Your task to perform on an android device: Search for the best books of all time on Goodreads Image 0: 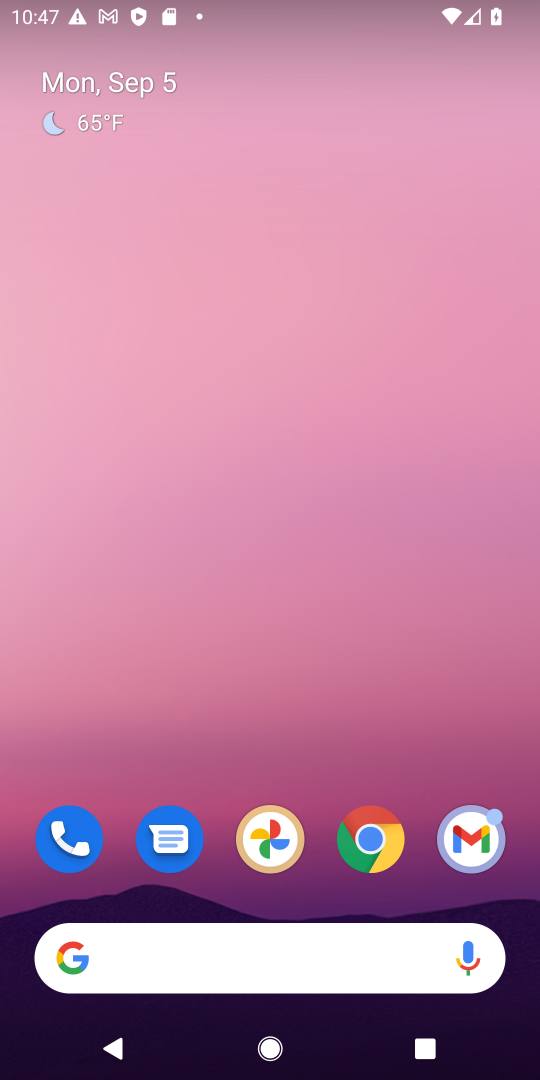
Step 0: drag from (228, 898) to (252, 111)
Your task to perform on an android device: Search for the best books of all time on Goodreads Image 1: 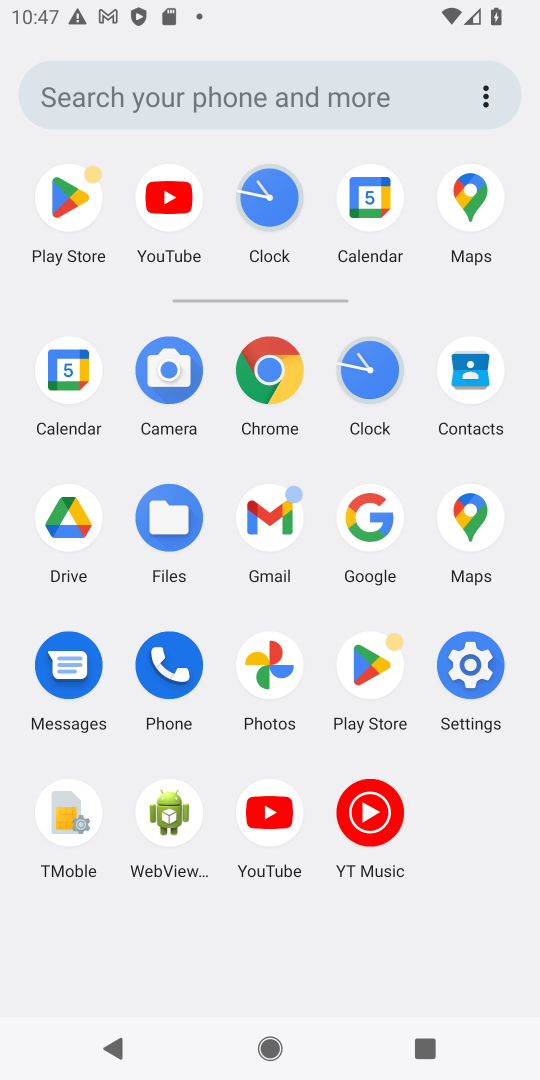
Step 1: click (376, 526)
Your task to perform on an android device: Search for the best books of all time on Goodreads Image 2: 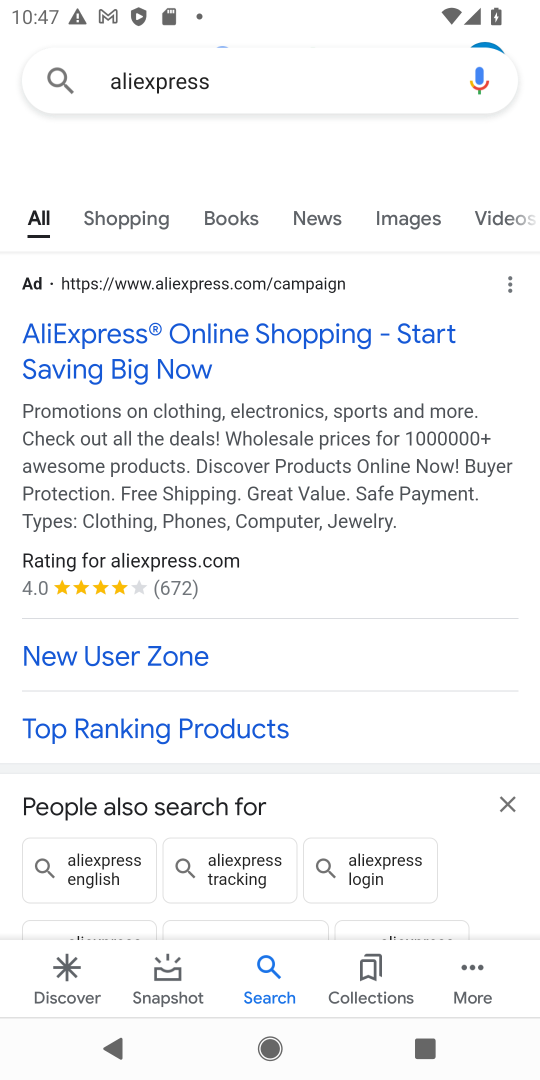
Step 2: click (370, 517)
Your task to perform on an android device: Search for the best books of all time on Goodreads Image 3: 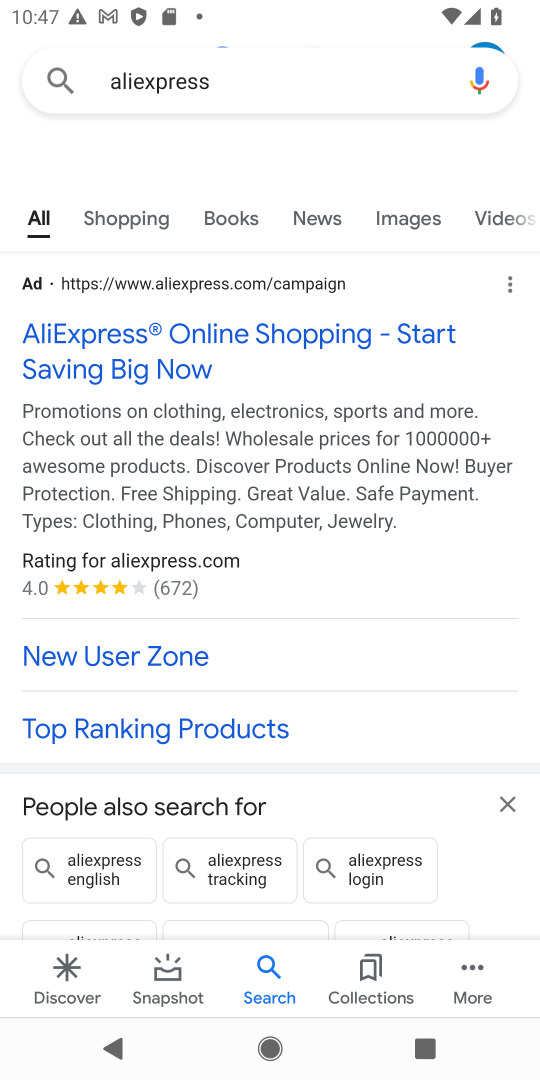
Step 3: click (178, 84)
Your task to perform on an android device: Search for the best books of all time on Goodreads Image 4: 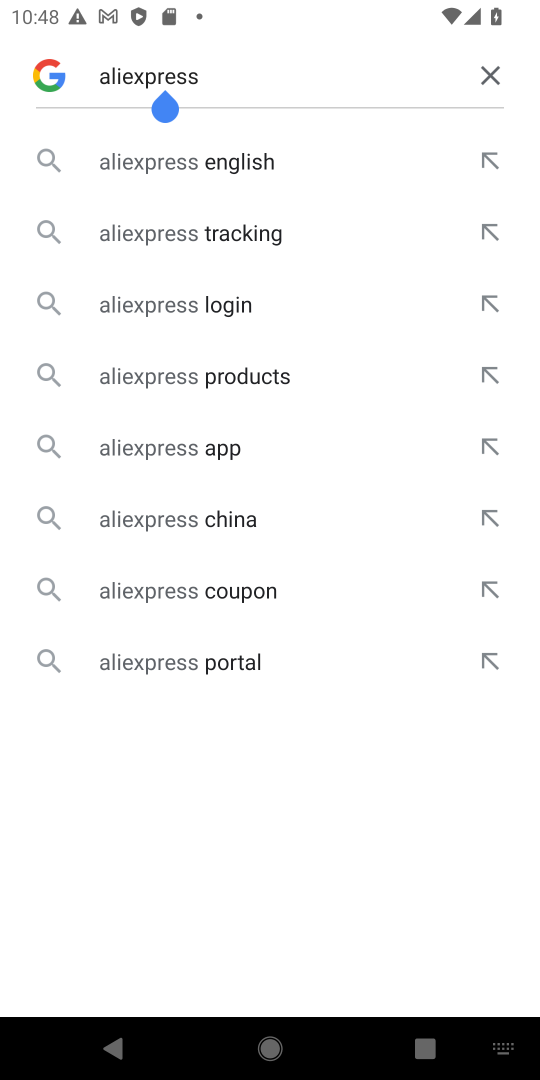
Step 4: click (489, 71)
Your task to perform on an android device: Search for the best books of all time on Goodreads Image 5: 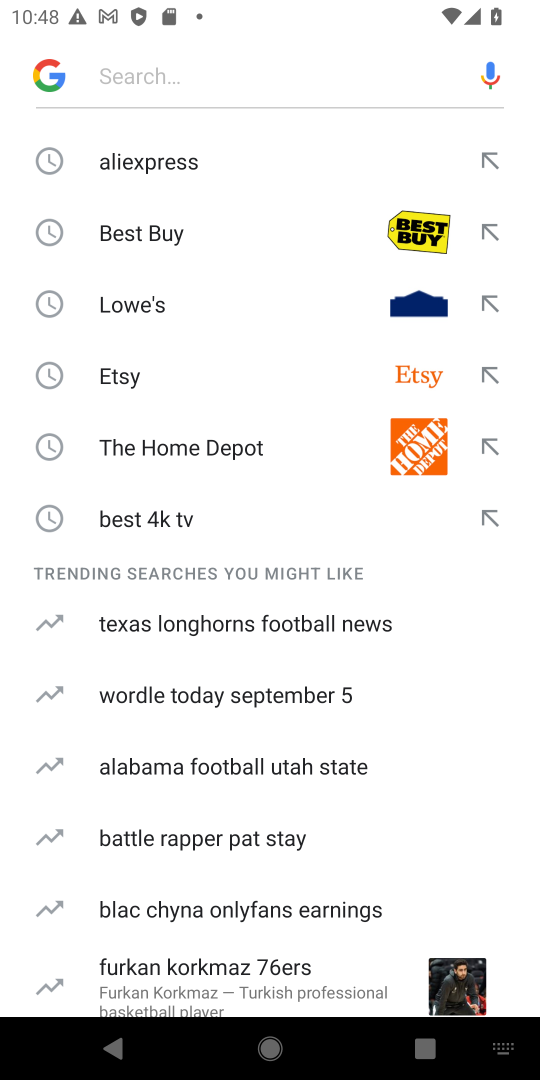
Step 5: type "Goodreads"
Your task to perform on an android device: Search for the best books of all time on Goodreads Image 6: 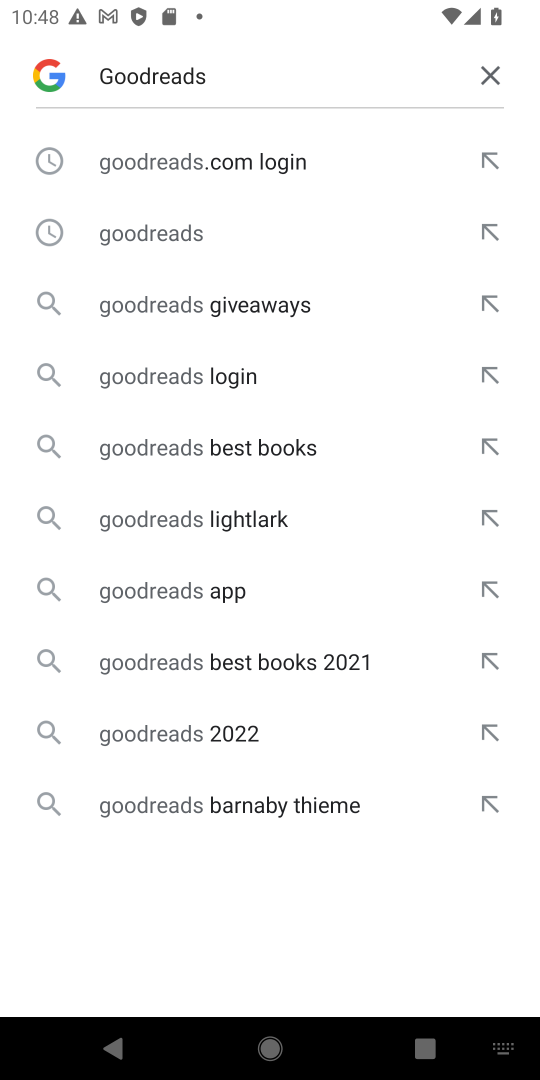
Step 6: click (180, 233)
Your task to perform on an android device: Search for the best books of all time on Goodreads Image 7: 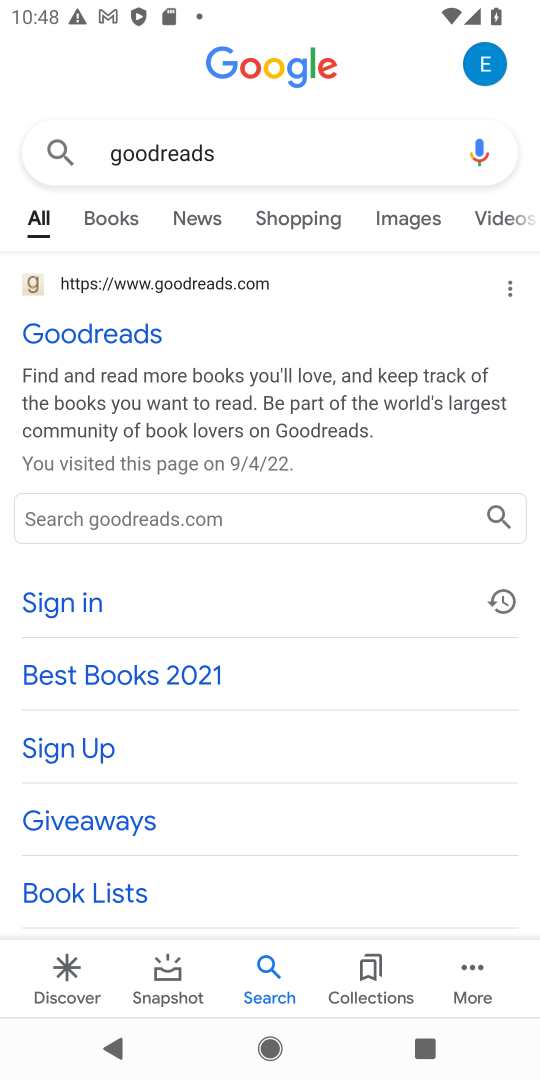
Step 7: click (113, 324)
Your task to perform on an android device: Search for the best books of all time on Goodreads Image 8: 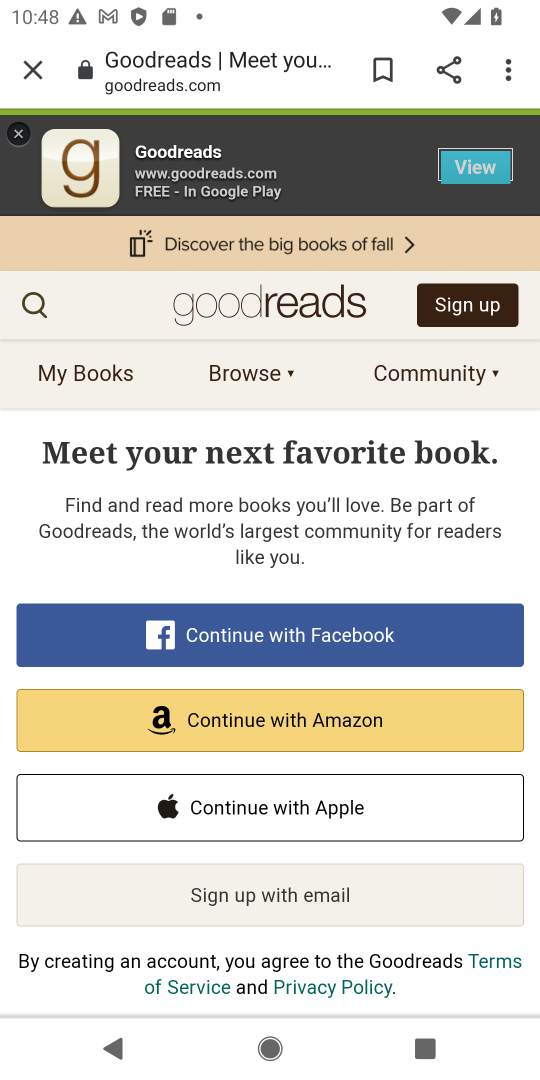
Step 8: click (20, 297)
Your task to perform on an android device: Search for the best books of all time on Goodreads Image 9: 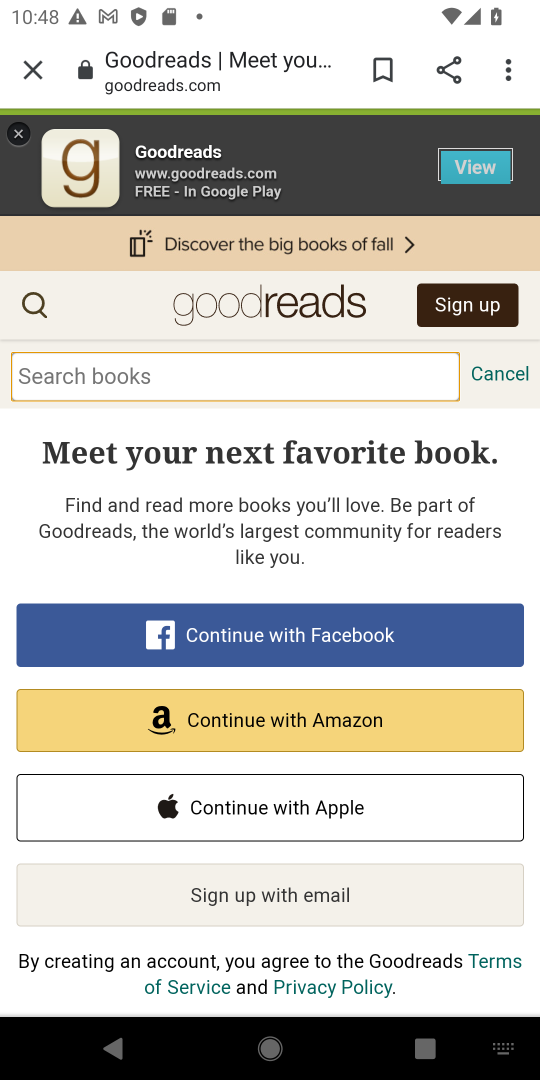
Step 9: type "best books"
Your task to perform on an android device: Search for the best books of all time on Goodreads Image 10: 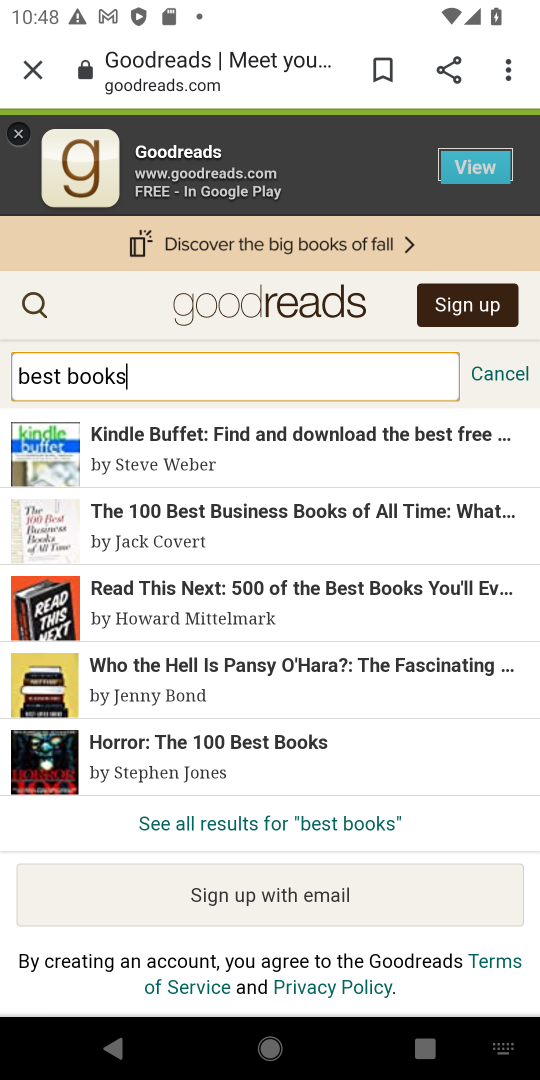
Step 10: click (221, 835)
Your task to perform on an android device: Search for the best books of all time on Goodreads Image 11: 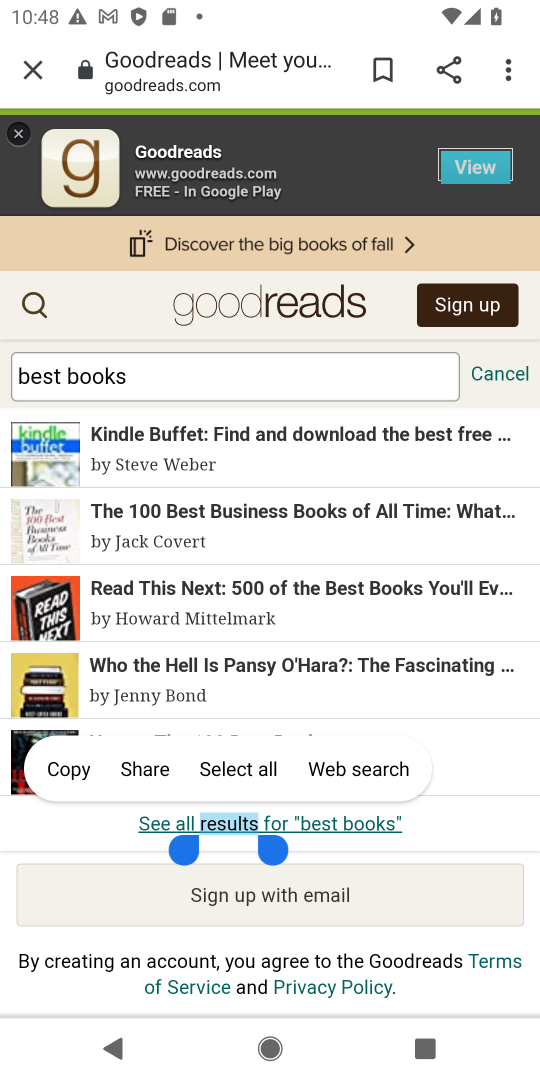
Step 11: click (161, 826)
Your task to perform on an android device: Search for the best books of all time on Goodreads Image 12: 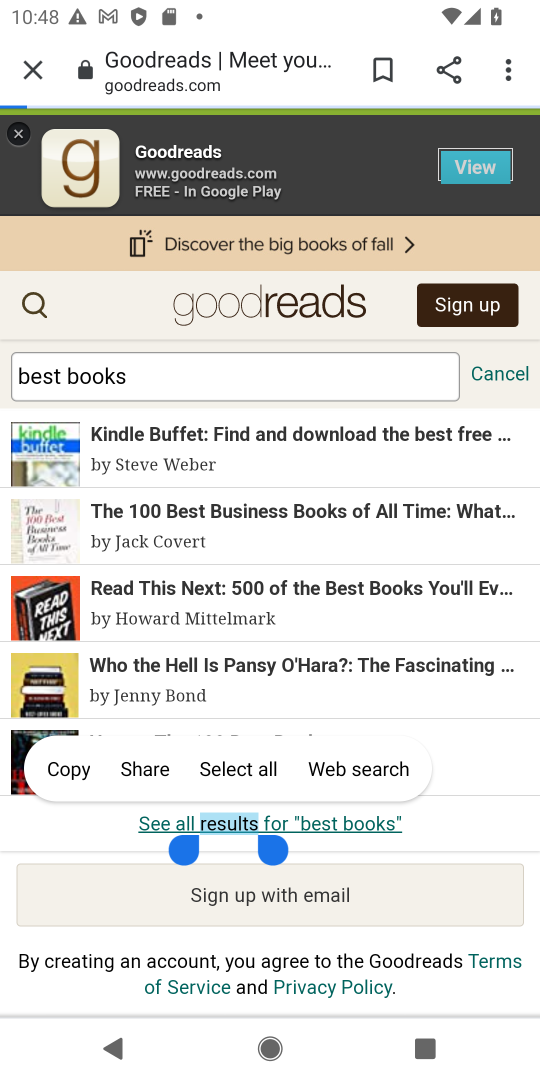
Step 12: click (131, 435)
Your task to perform on an android device: Search for the best books of all time on Goodreads Image 13: 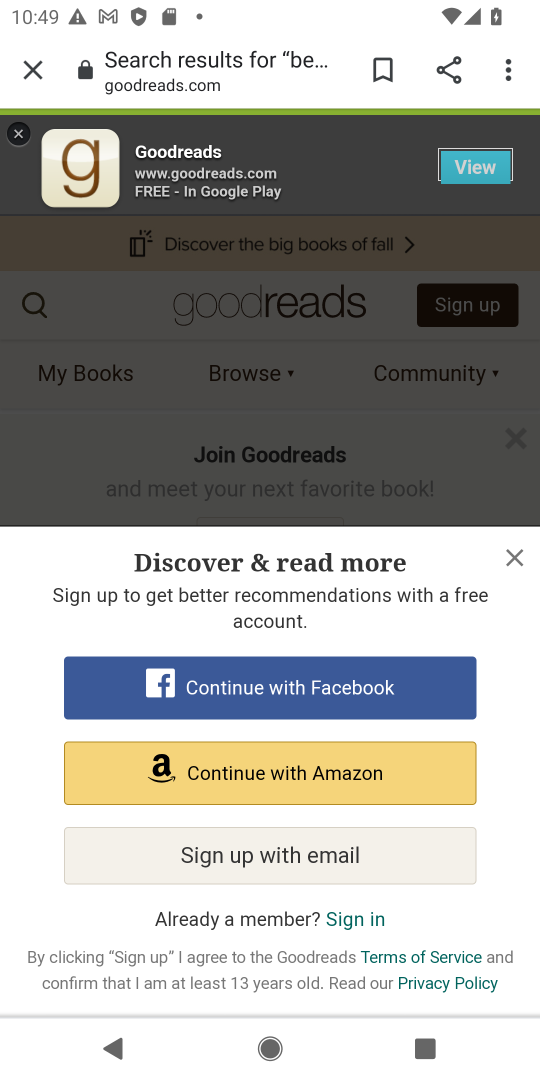
Step 13: click (504, 557)
Your task to perform on an android device: Search for the best books of all time on Goodreads Image 14: 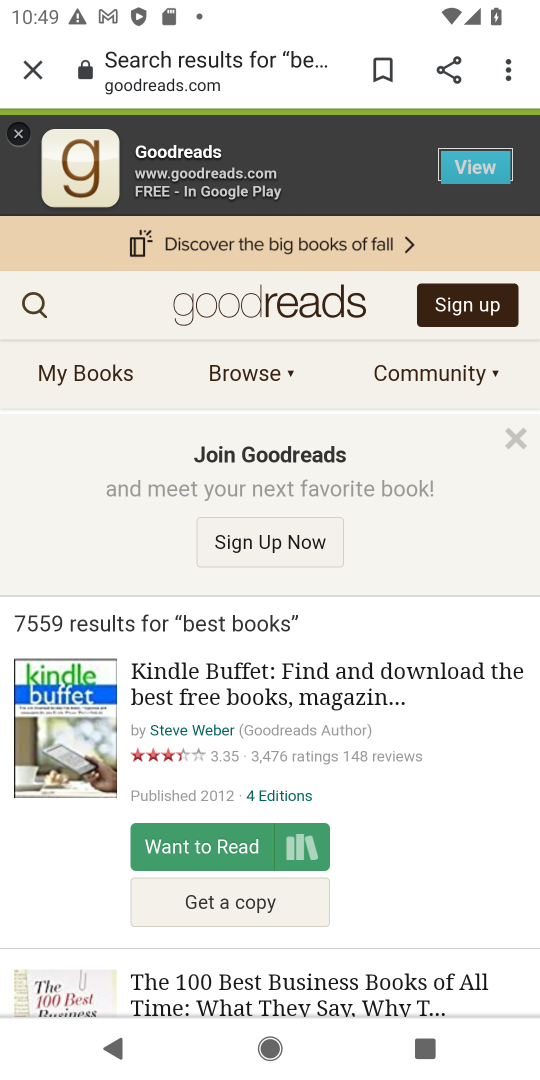
Step 14: task complete